Your task to perform on an android device: refresh tabs in the chrome app Image 0: 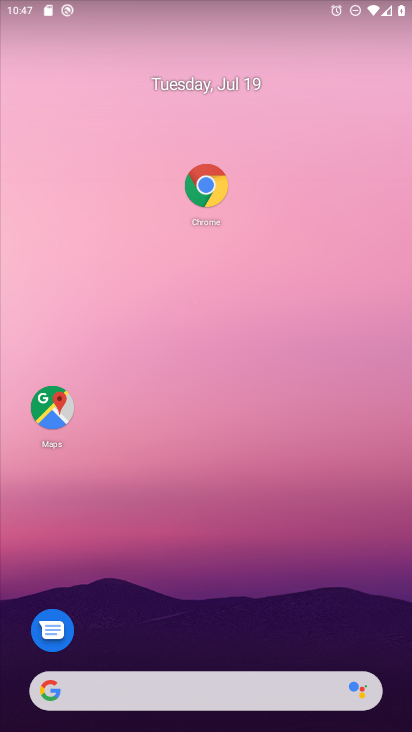
Step 0: drag from (176, 543) to (143, 145)
Your task to perform on an android device: refresh tabs in the chrome app Image 1: 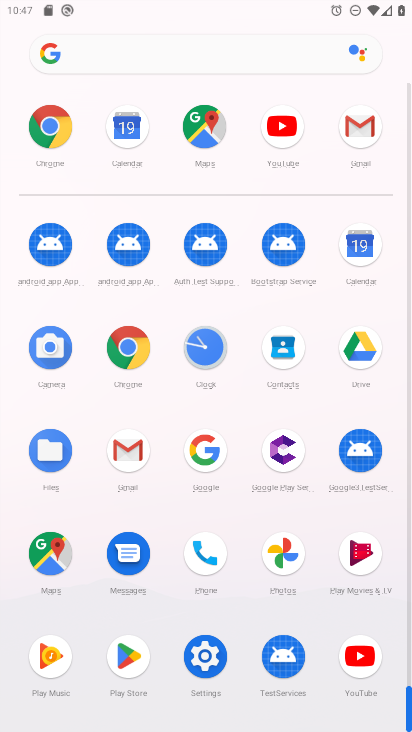
Step 1: click (130, 354)
Your task to perform on an android device: refresh tabs in the chrome app Image 2: 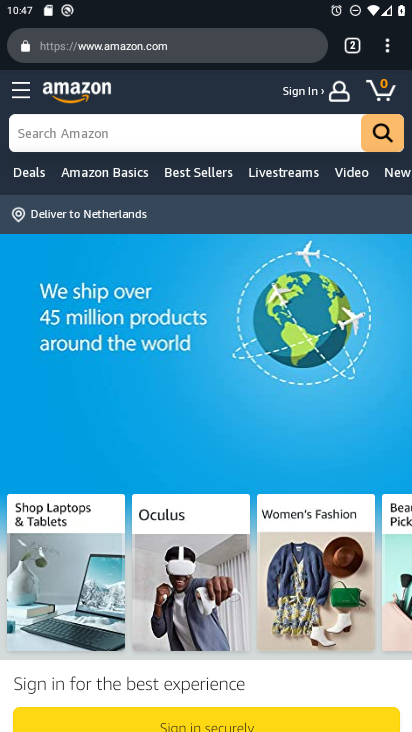
Step 2: click (383, 51)
Your task to perform on an android device: refresh tabs in the chrome app Image 3: 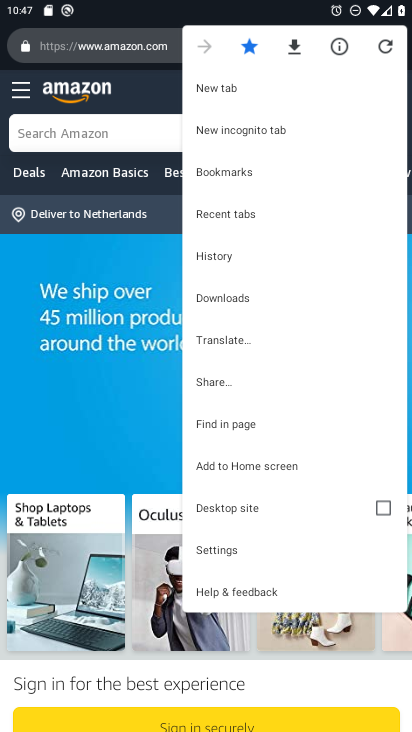
Step 3: click (388, 48)
Your task to perform on an android device: refresh tabs in the chrome app Image 4: 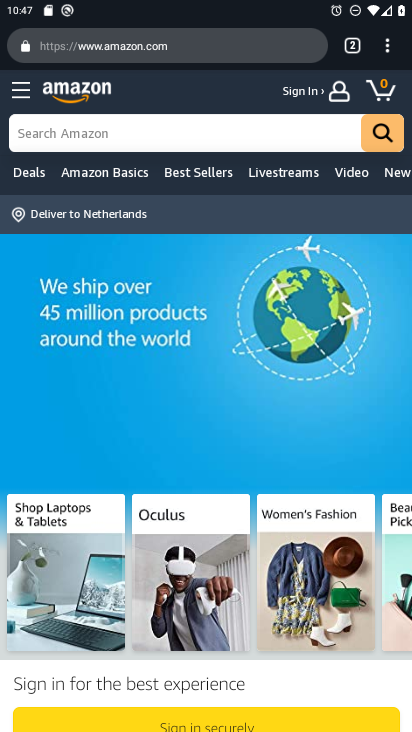
Step 4: task complete